Your task to perform on an android device: change notification settings in the gmail app Image 0: 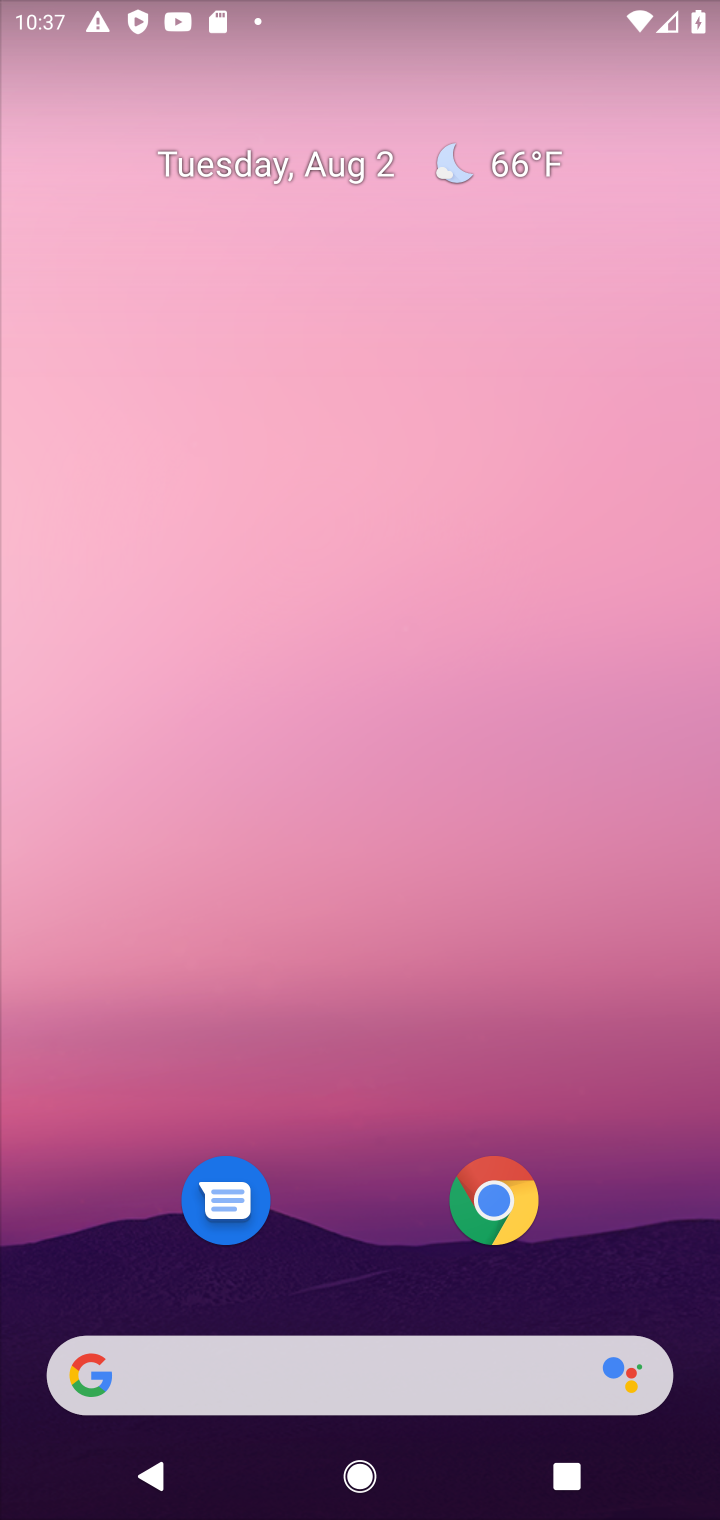
Step 0: drag from (687, 1303) to (644, 90)
Your task to perform on an android device: change notification settings in the gmail app Image 1: 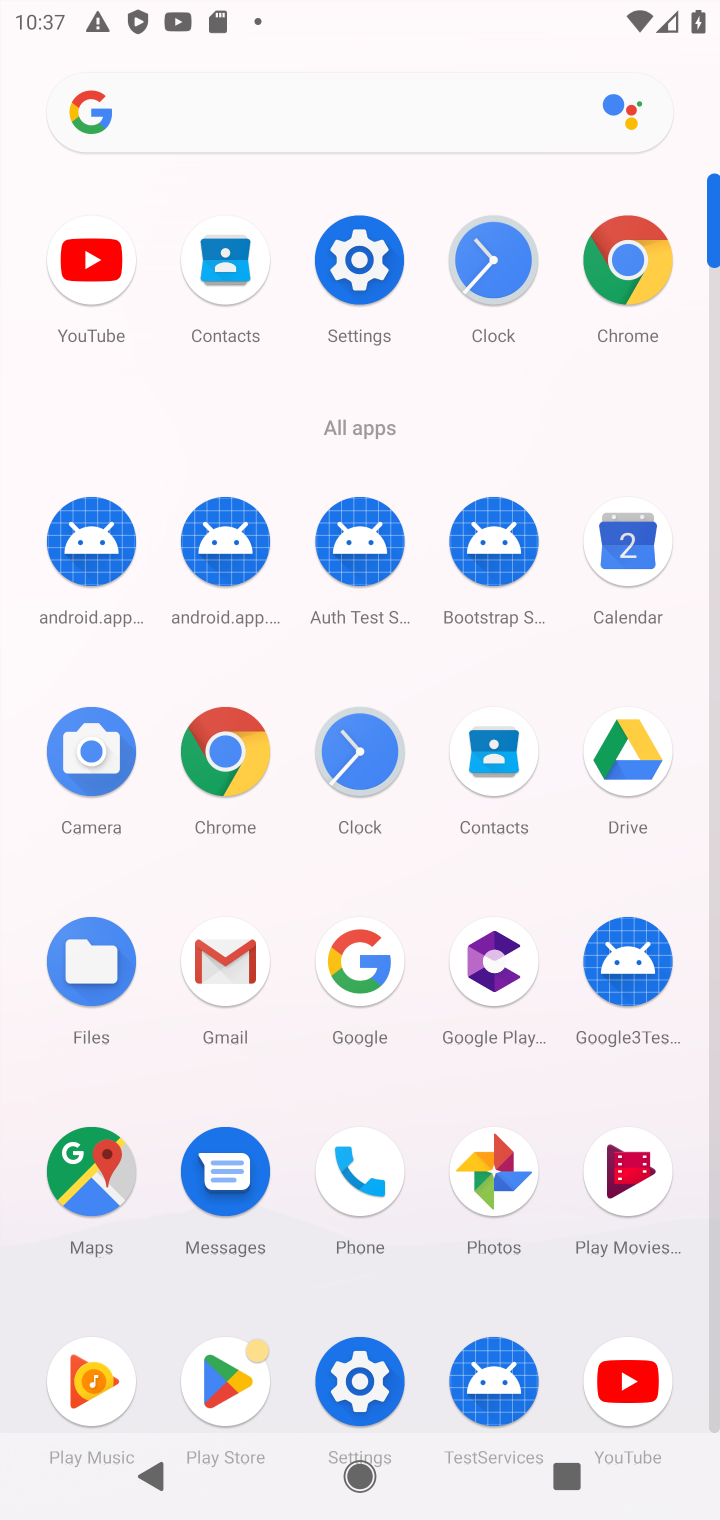
Step 1: click (225, 959)
Your task to perform on an android device: change notification settings in the gmail app Image 2: 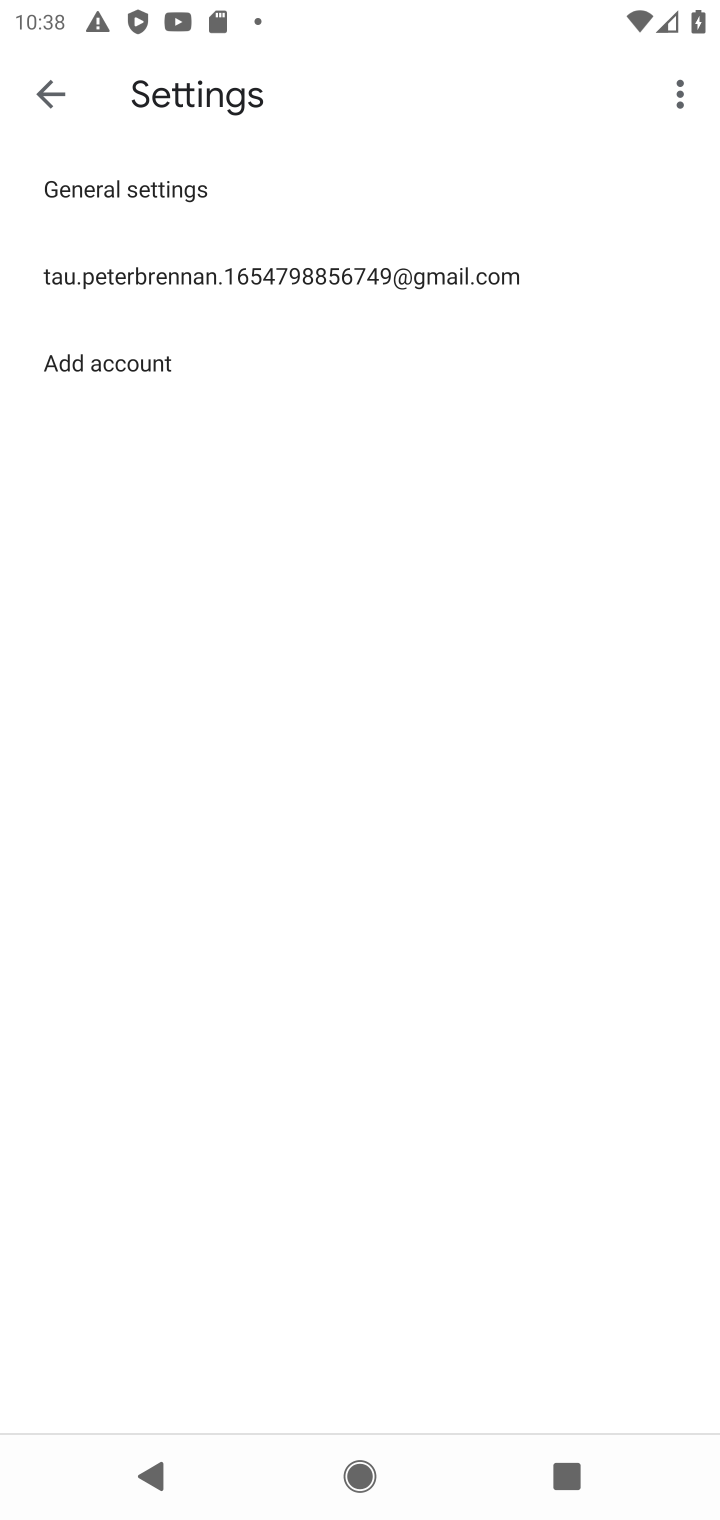
Step 2: click (248, 295)
Your task to perform on an android device: change notification settings in the gmail app Image 3: 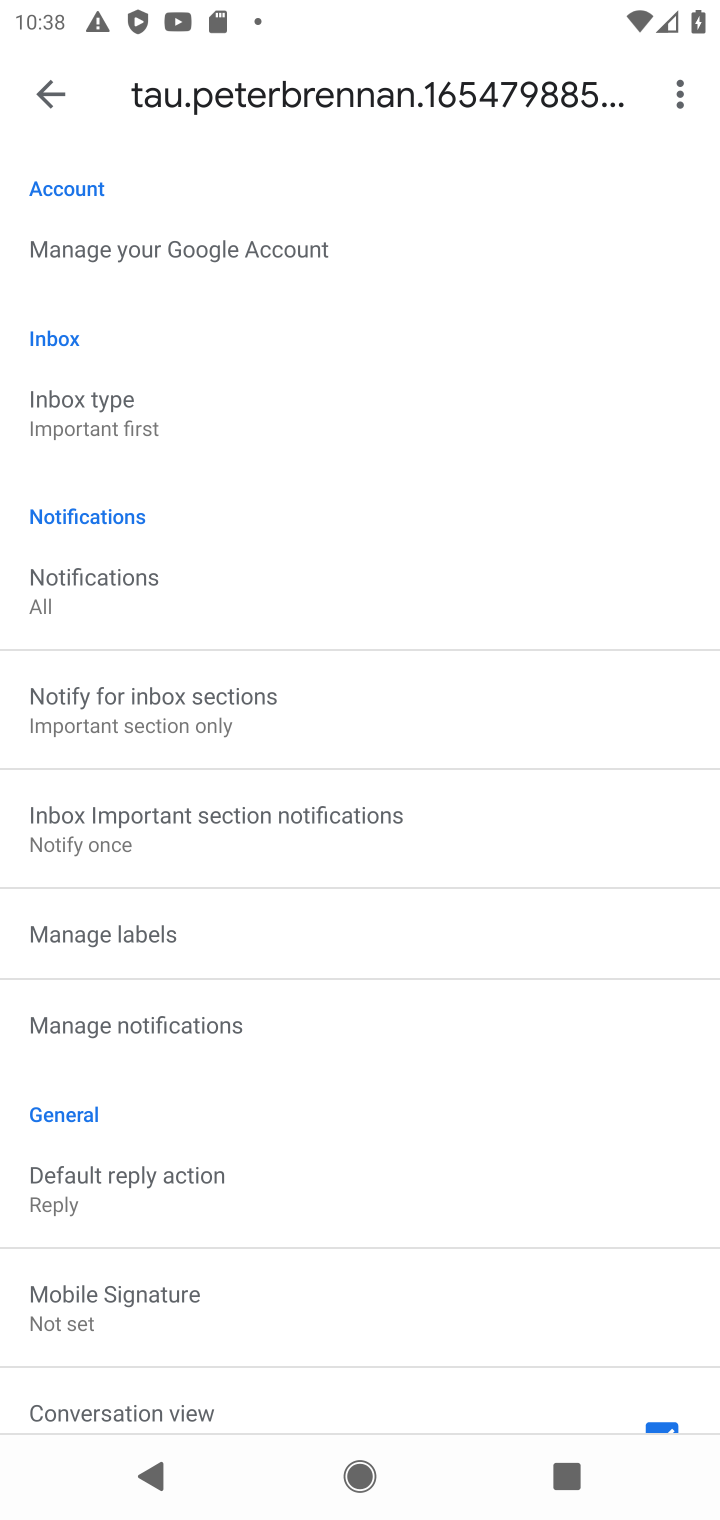
Step 3: click (143, 1015)
Your task to perform on an android device: change notification settings in the gmail app Image 4: 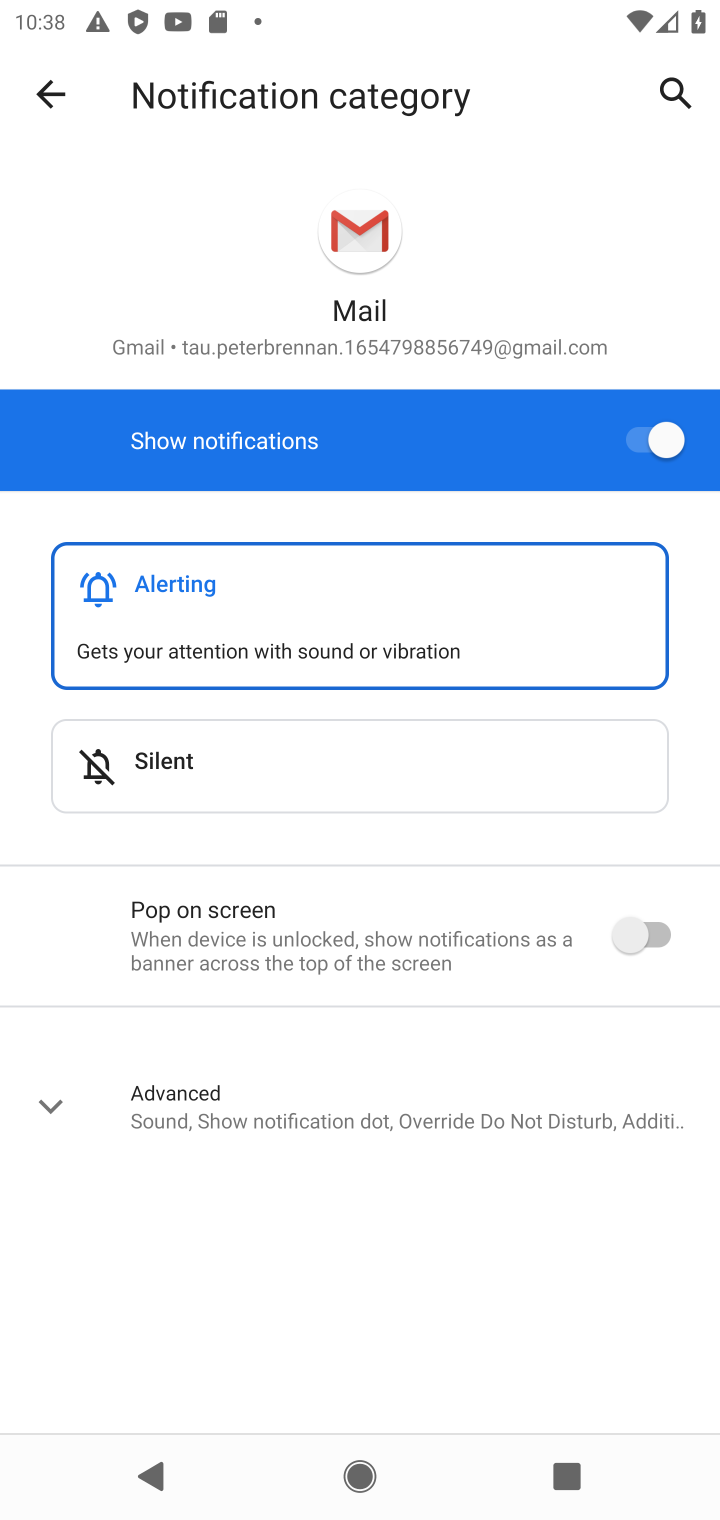
Step 4: click (634, 443)
Your task to perform on an android device: change notification settings in the gmail app Image 5: 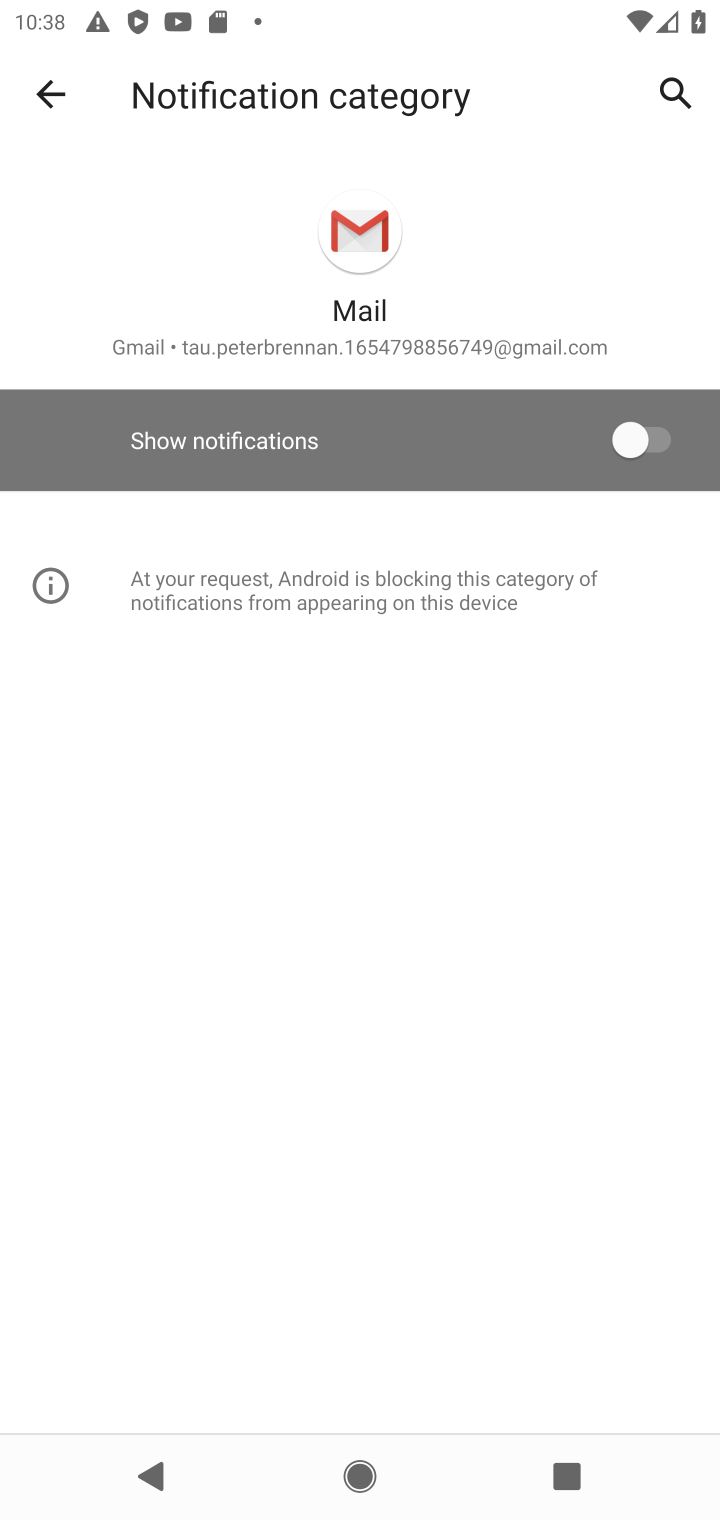
Step 5: task complete